Your task to perform on an android device: Open settings Image 0: 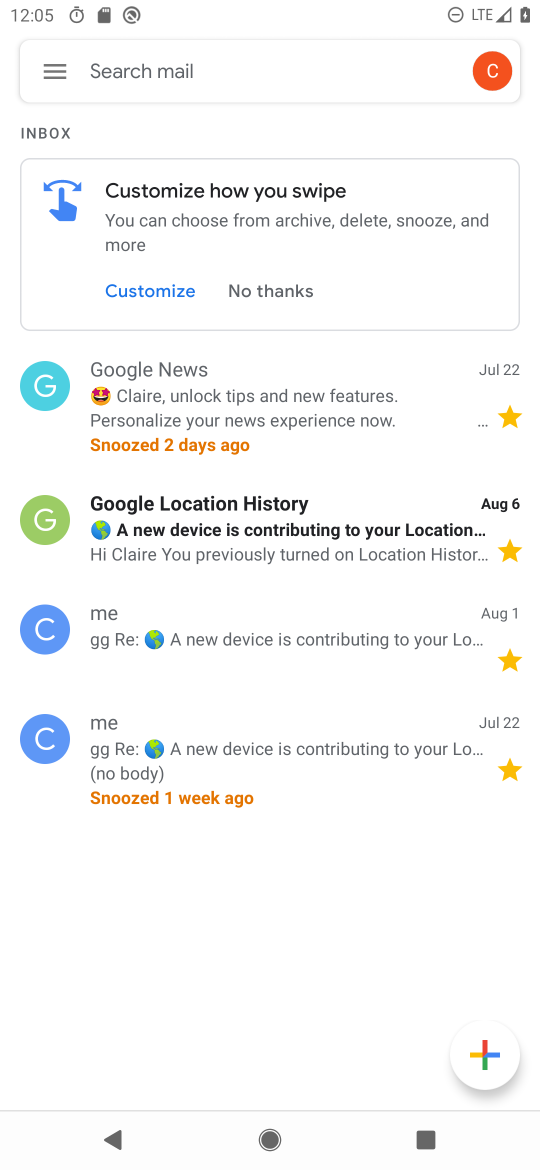
Step 0: press home button
Your task to perform on an android device: Open settings Image 1: 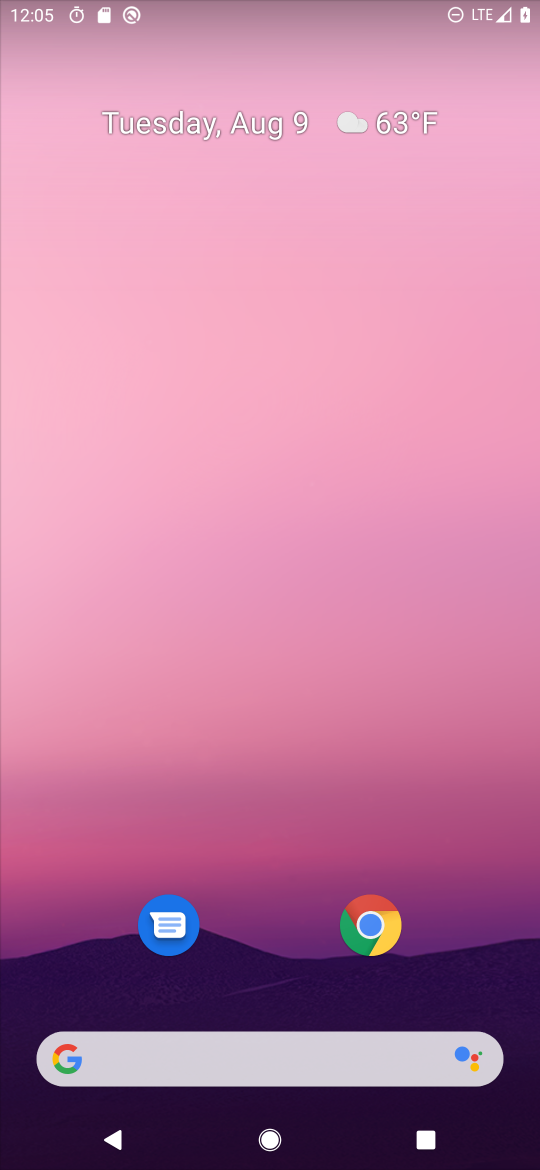
Step 1: drag from (221, 886) to (313, 133)
Your task to perform on an android device: Open settings Image 2: 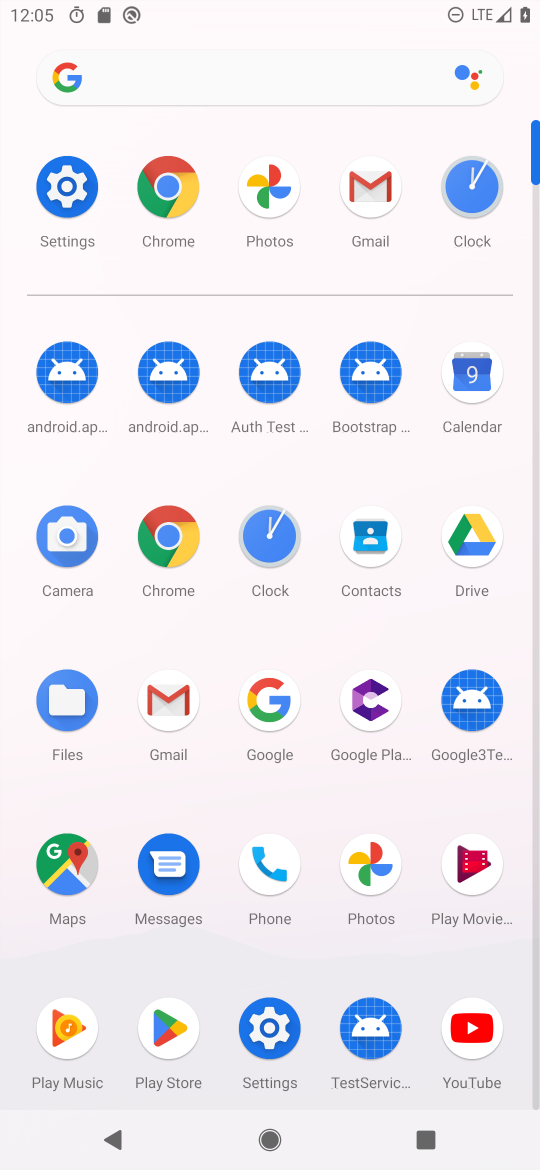
Step 2: click (72, 178)
Your task to perform on an android device: Open settings Image 3: 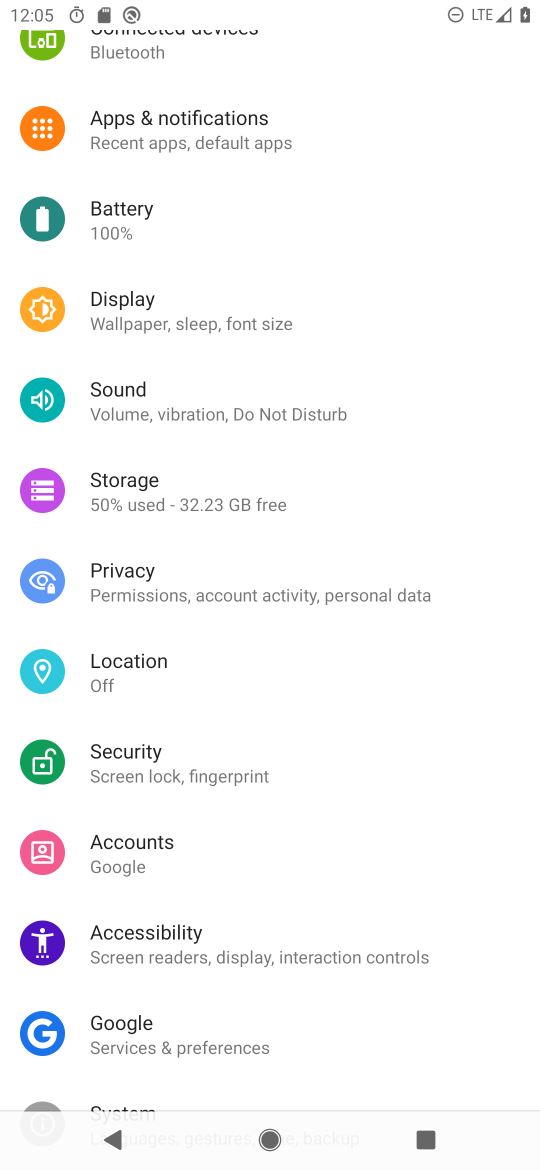
Step 3: task complete